Your task to perform on an android device: Empty the shopping cart on costco. Search for razer blade on costco, select the first entry, and add it to the cart. Image 0: 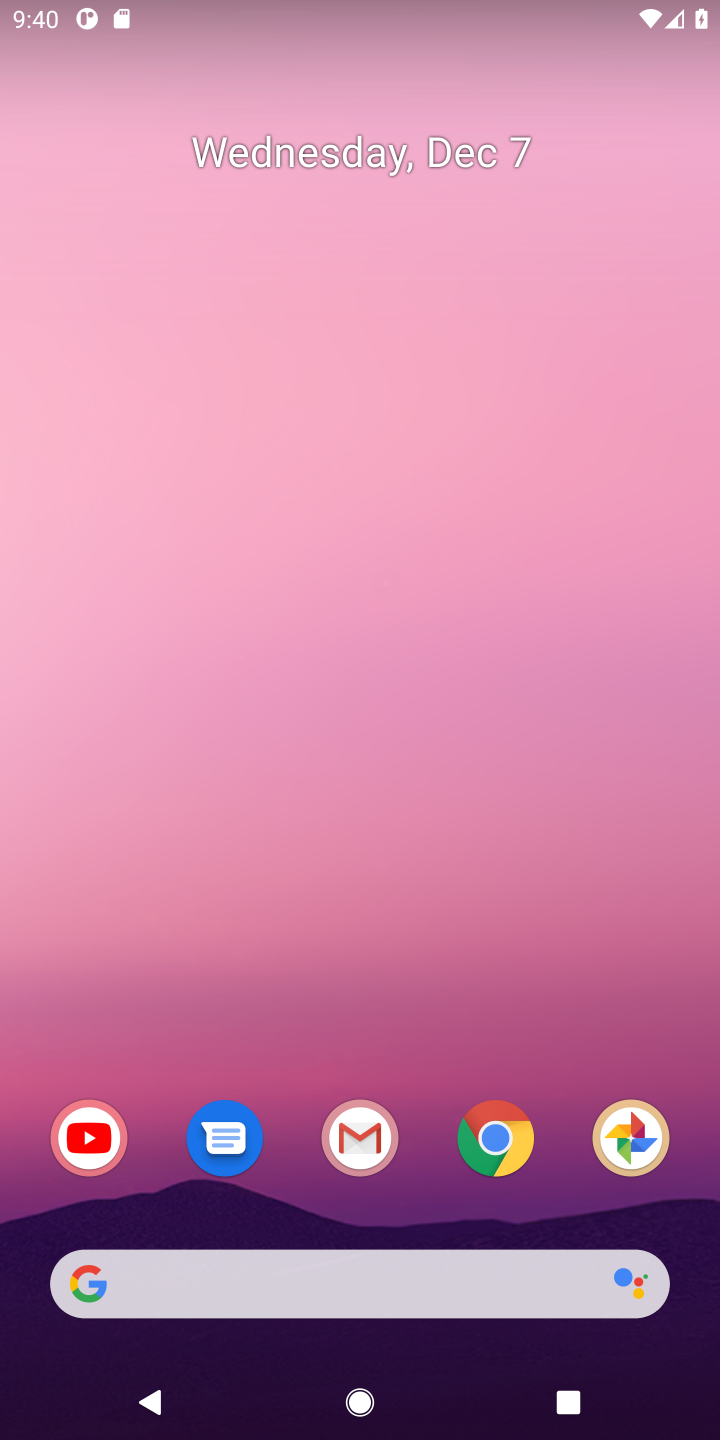
Step 0: press home button
Your task to perform on an android device: Empty the shopping cart on costco. Search for razer blade on costco, select the first entry, and add it to the cart. Image 1: 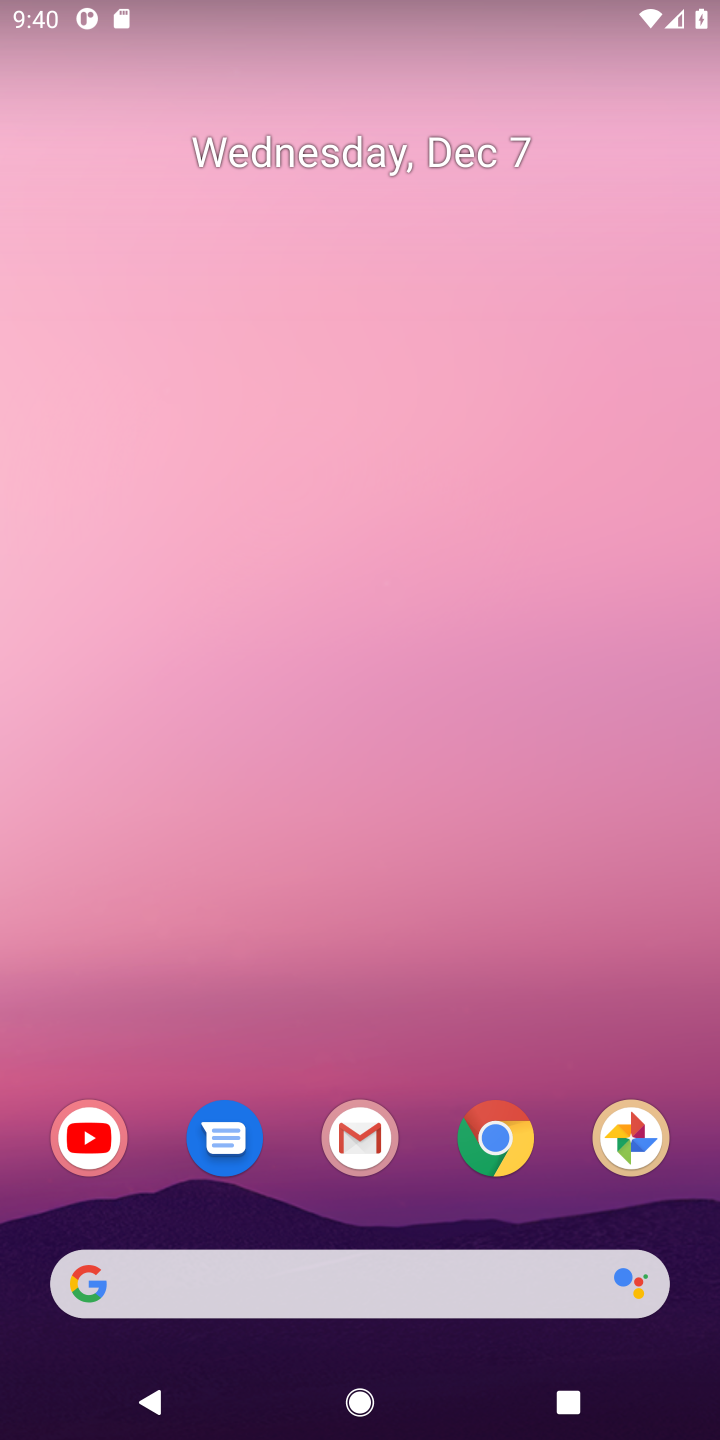
Step 1: click (136, 1282)
Your task to perform on an android device: Empty the shopping cart on costco. Search for razer blade on costco, select the first entry, and add it to the cart. Image 2: 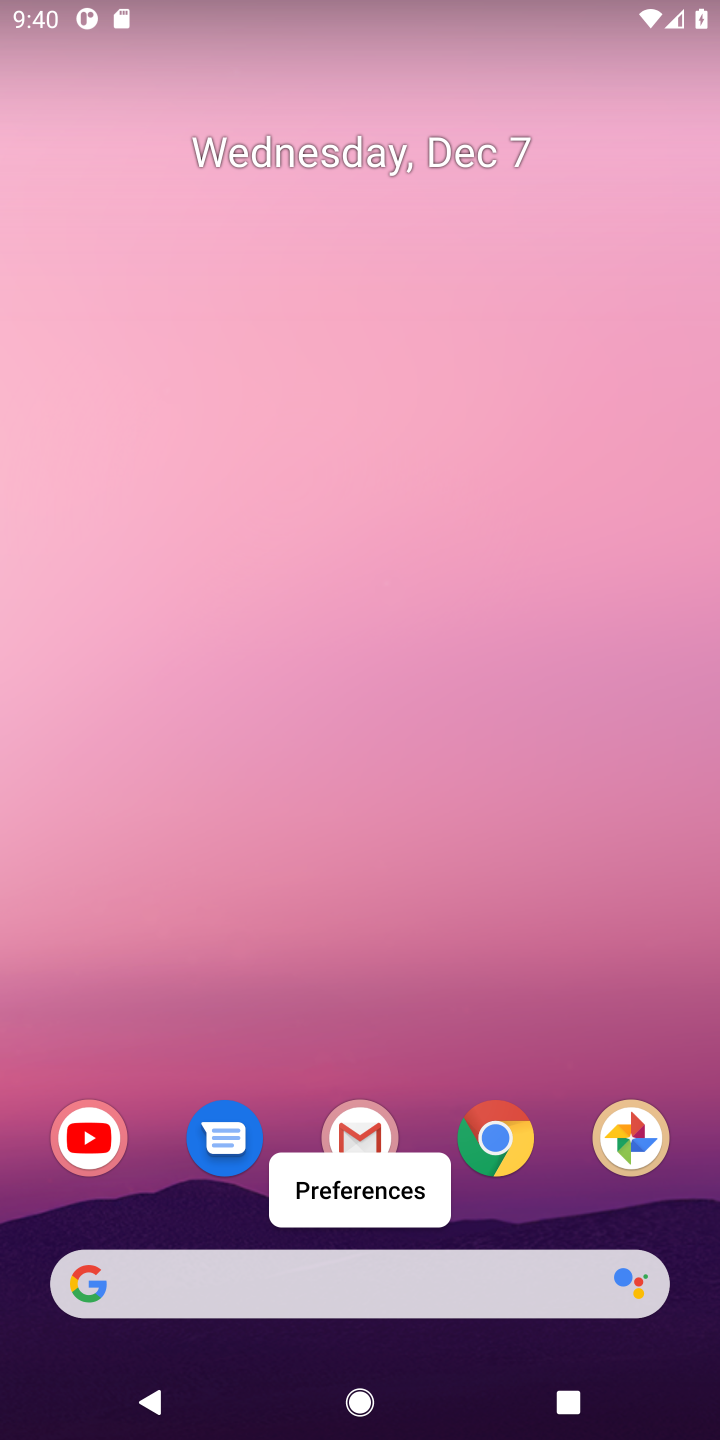
Step 2: click (136, 1282)
Your task to perform on an android device: Empty the shopping cart on costco. Search for razer blade on costco, select the first entry, and add it to the cart. Image 3: 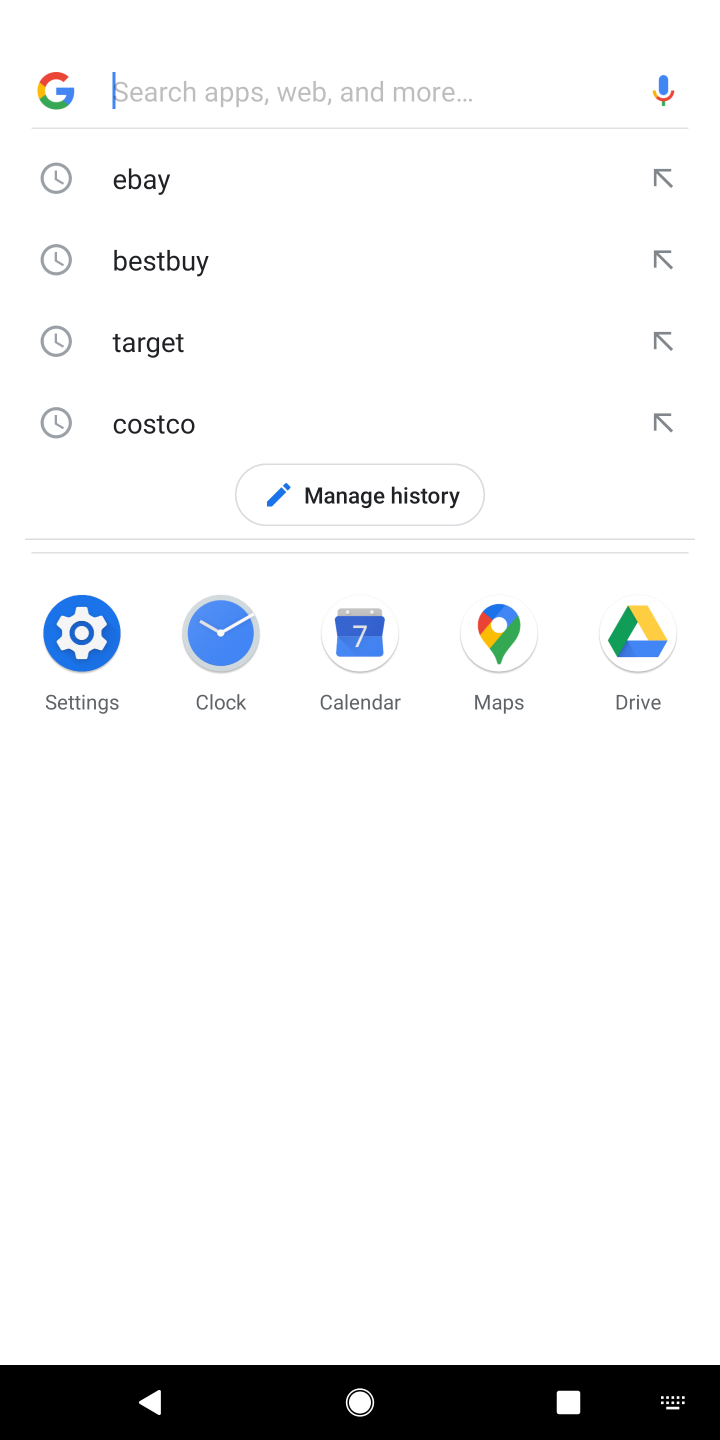
Step 3: type " costco"
Your task to perform on an android device: Empty the shopping cart on costco. Search for razer blade on costco, select the first entry, and add it to the cart. Image 4: 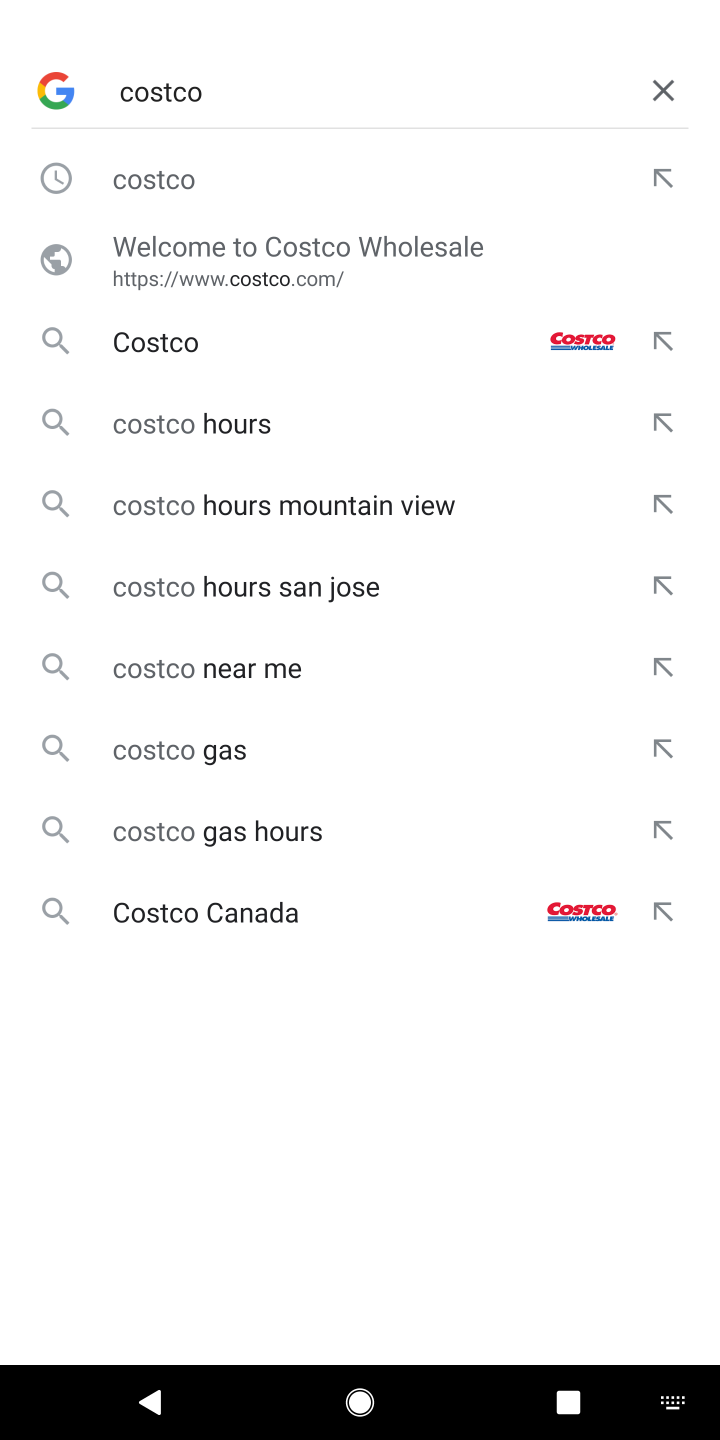
Step 4: press enter
Your task to perform on an android device: Empty the shopping cart on costco. Search for razer blade on costco, select the first entry, and add it to the cart. Image 5: 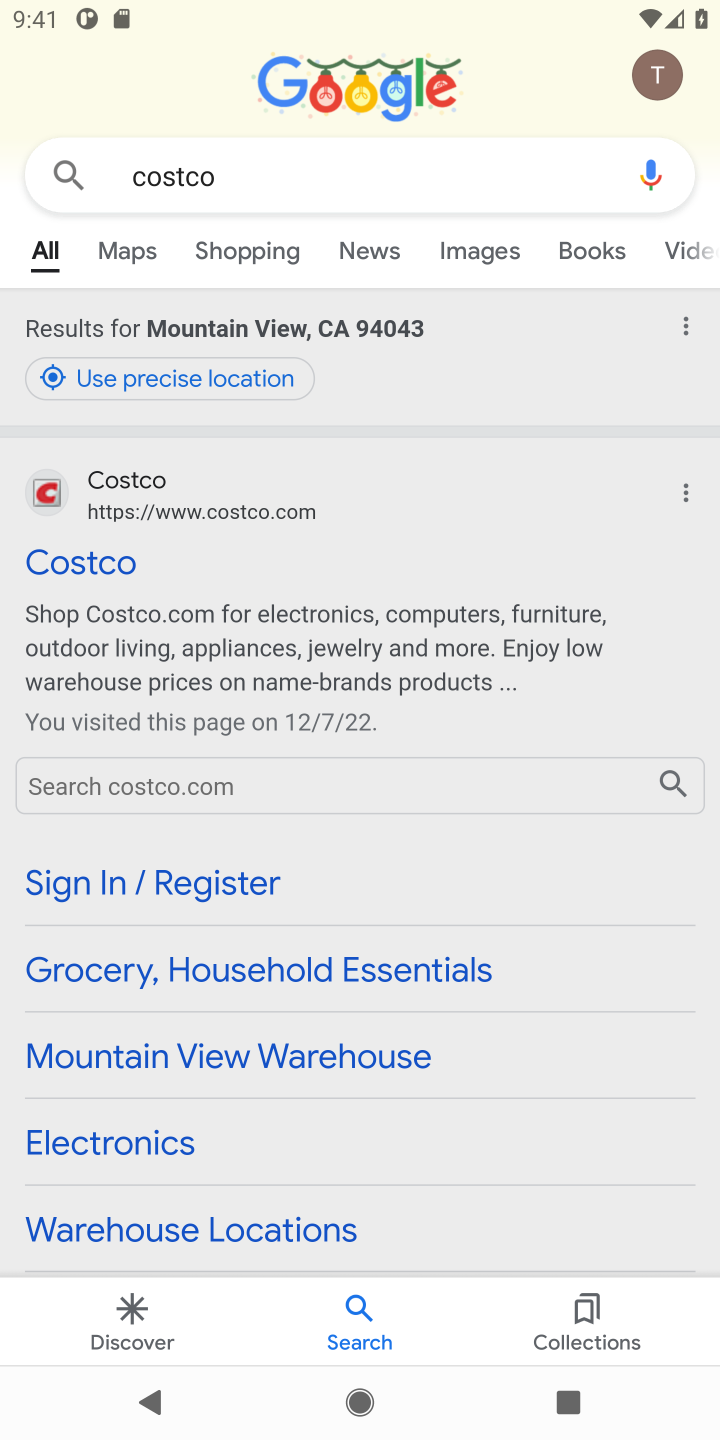
Step 5: click (75, 570)
Your task to perform on an android device: Empty the shopping cart on costco. Search for razer blade on costco, select the first entry, and add it to the cart. Image 6: 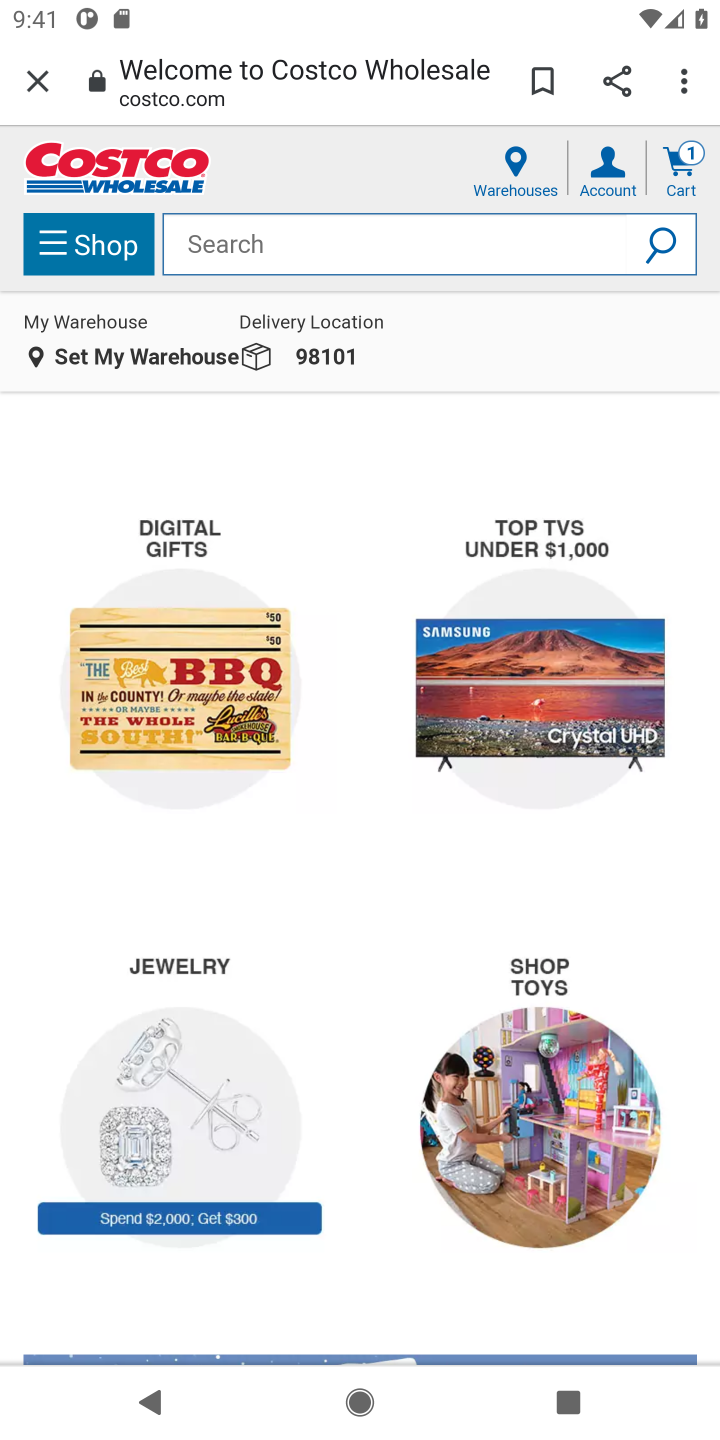
Step 6: click (680, 160)
Your task to perform on an android device: Empty the shopping cart on costco. Search for razer blade on costco, select the first entry, and add it to the cart. Image 7: 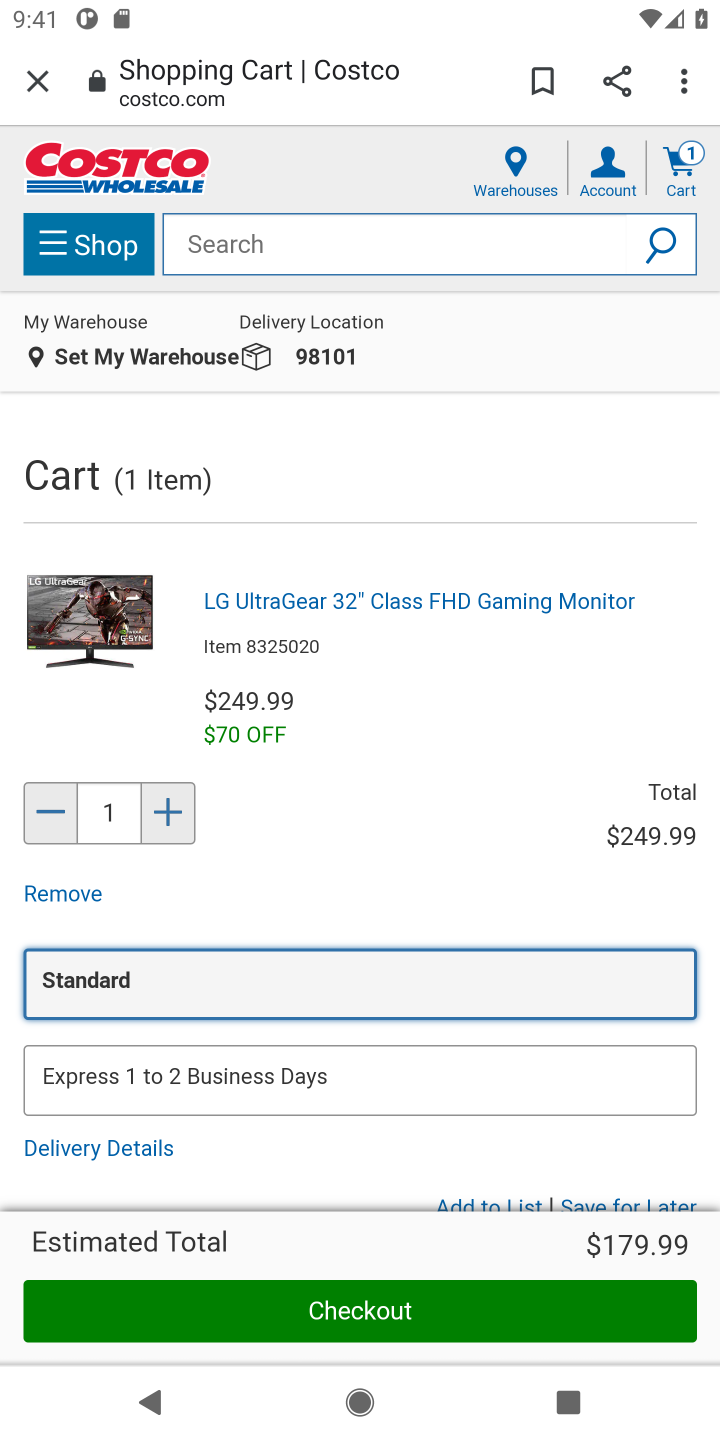
Step 7: click (53, 889)
Your task to perform on an android device: Empty the shopping cart on costco. Search for razer blade on costco, select the first entry, and add it to the cart. Image 8: 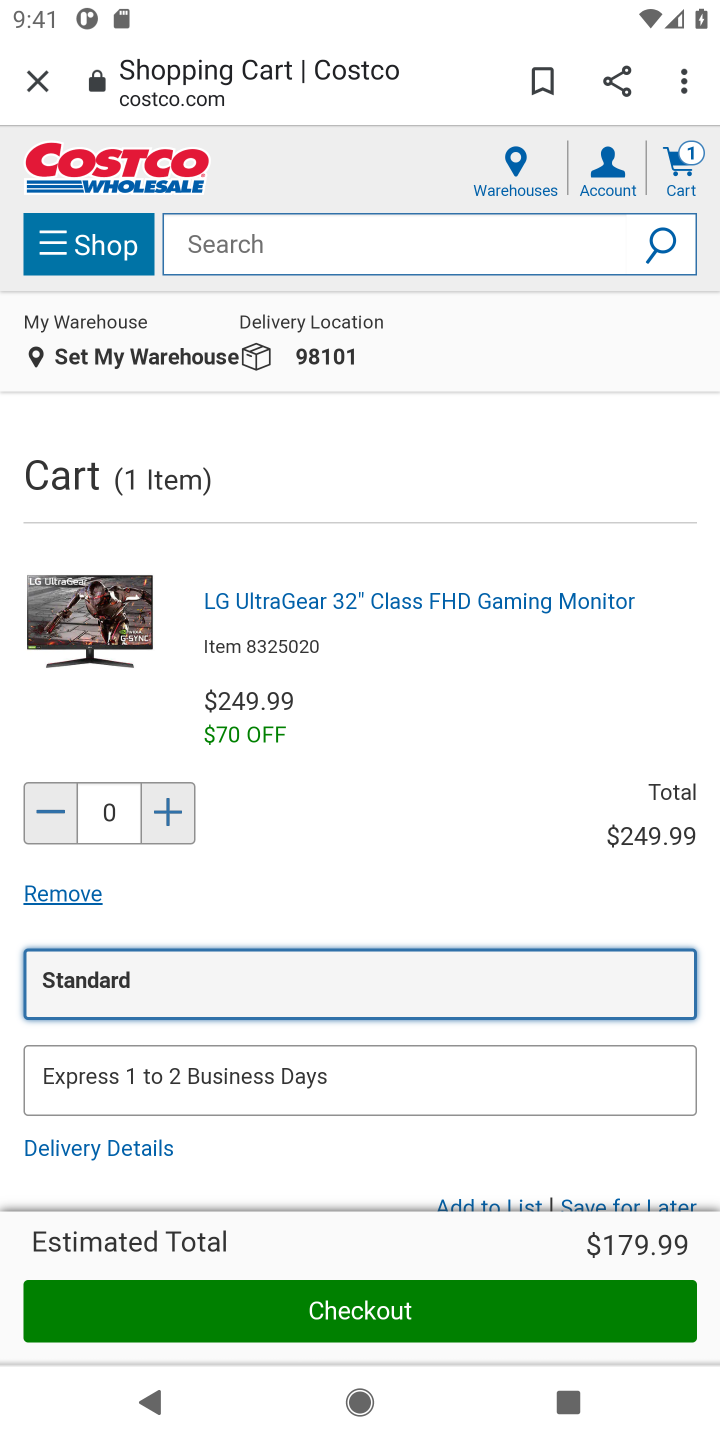
Step 8: click (329, 252)
Your task to perform on an android device: Empty the shopping cart on costco. Search for razer blade on costco, select the first entry, and add it to the cart. Image 9: 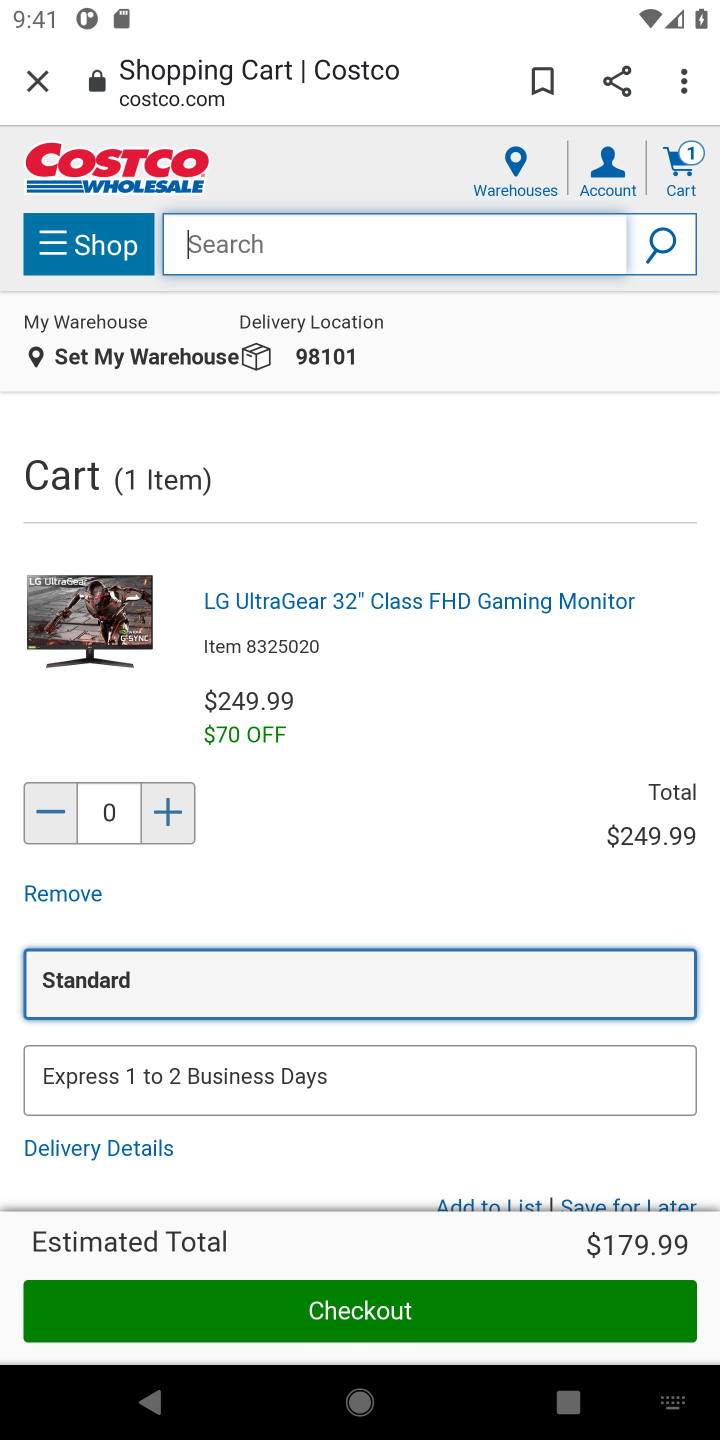
Step 9: type "razer blade"
Your task to perform on an android device: Empty the shopping cart on costco. Search for razer blade on costco, select the first entry, and add it to the cart. Image 10: 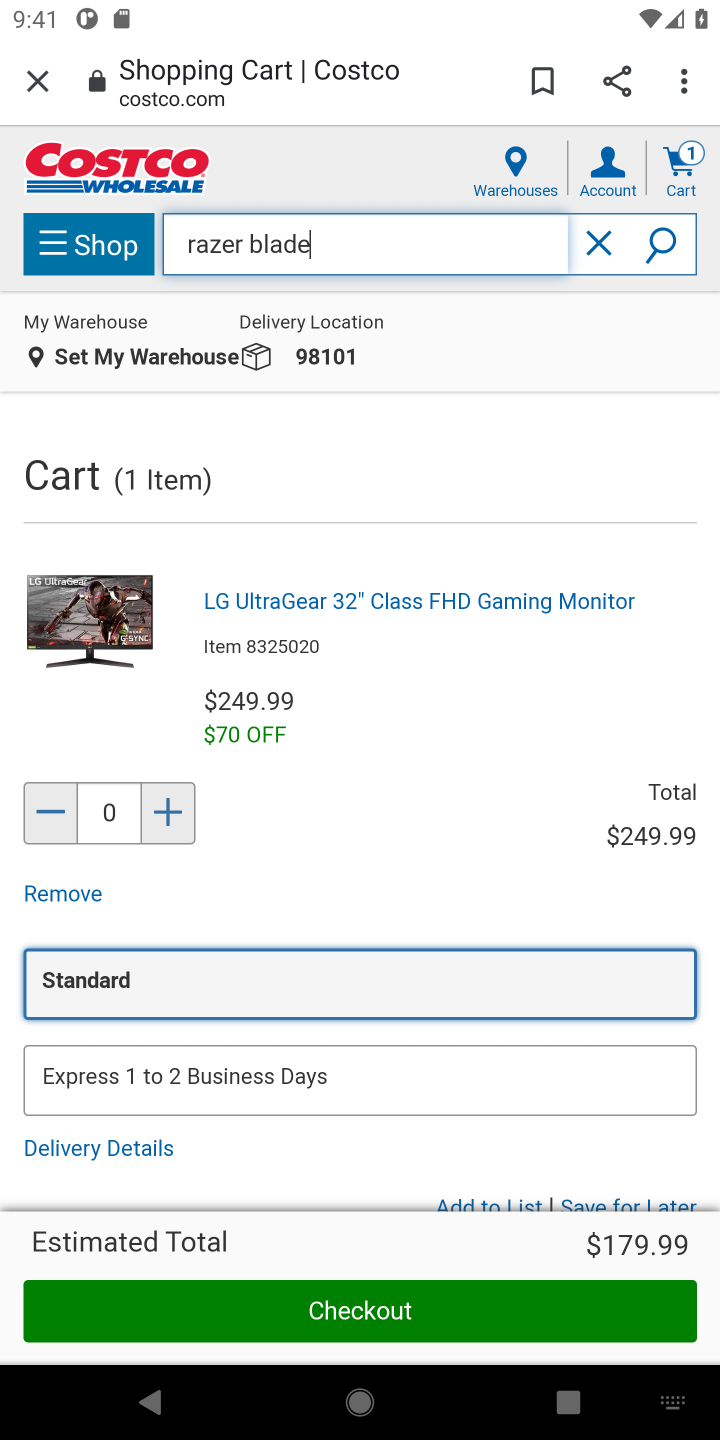
Step 10: press enter
Your task to perform on an android device: Empty the shopping cart on costco. Search for razer blade on costco, select the first entry, and add it to the cart. Image 11: 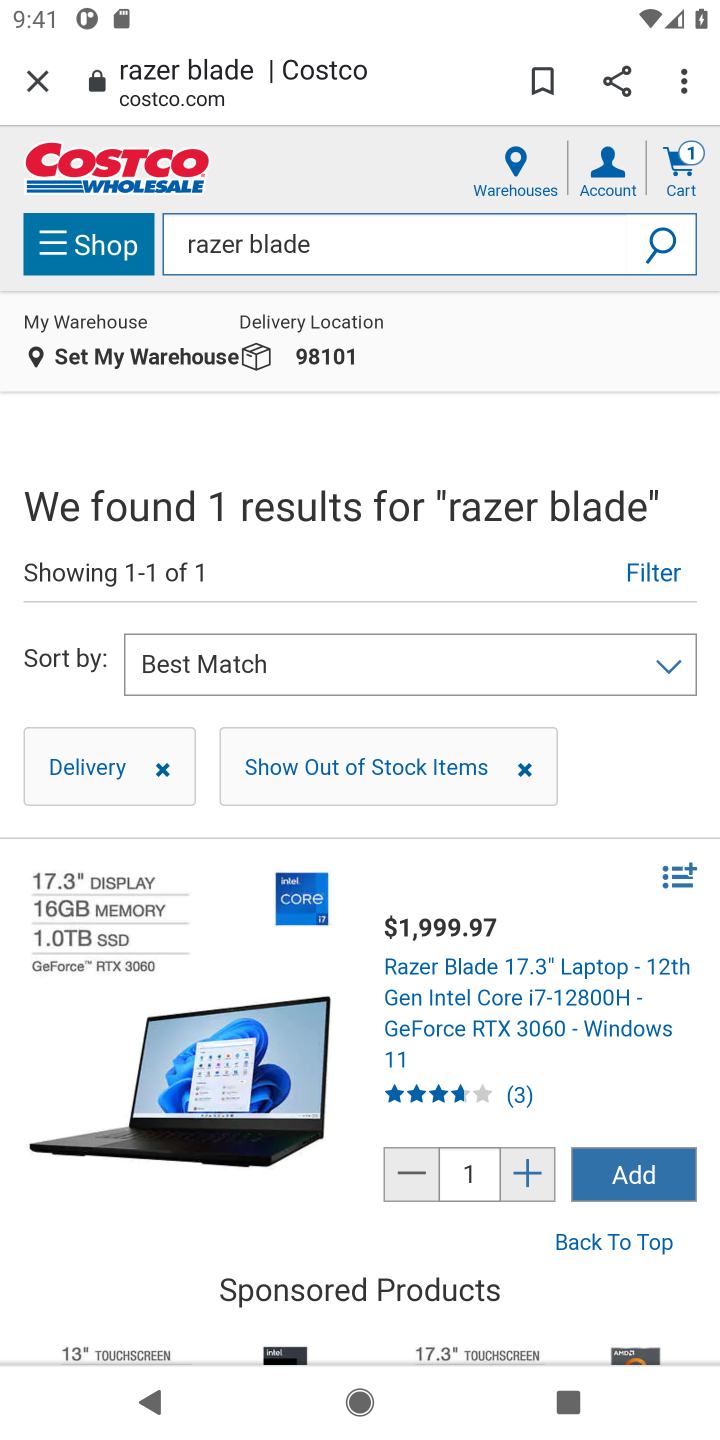
Step 11: click (638, 1178)
Your task to perform on an android device: Empty the shopping cart on costco. Search for razer blade on costco, select the first entry, and add it to the cart. Image 12: 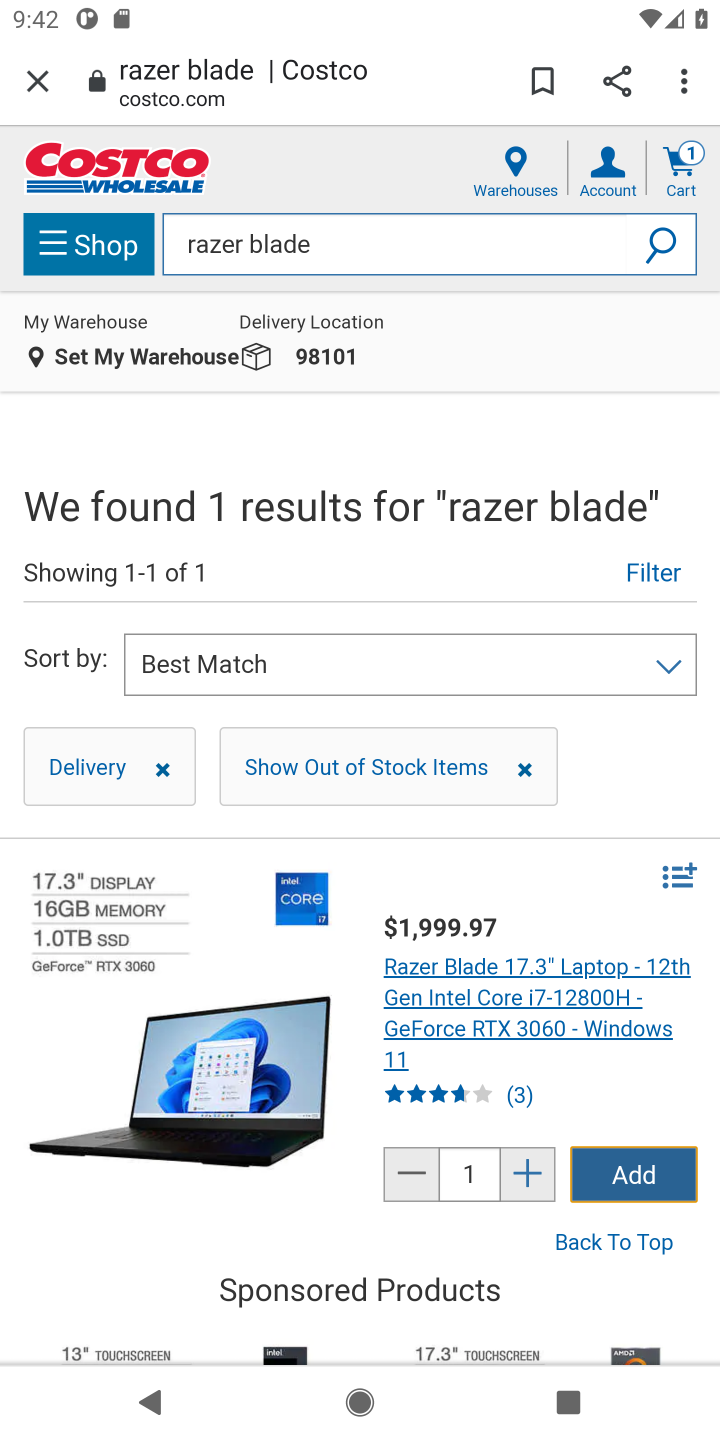
Step 12: click (641, 1177)
Your task to perform on an android device: Empty the shopping cart on costco. Search for razer blade on costco, select the first entry, and add it to the cart. Image 13: 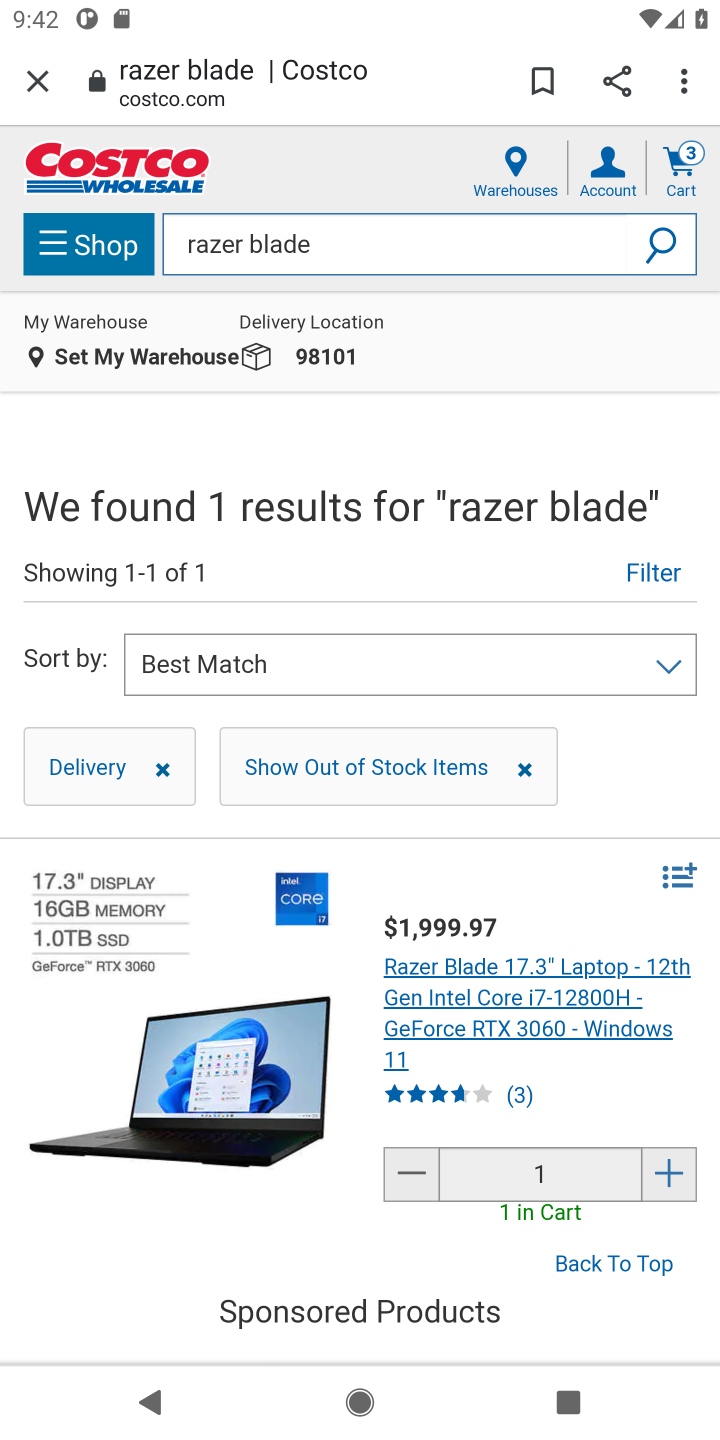
Step 13: task complete